Your task to perform on an android device: turn off improve location accuracy Image 0: 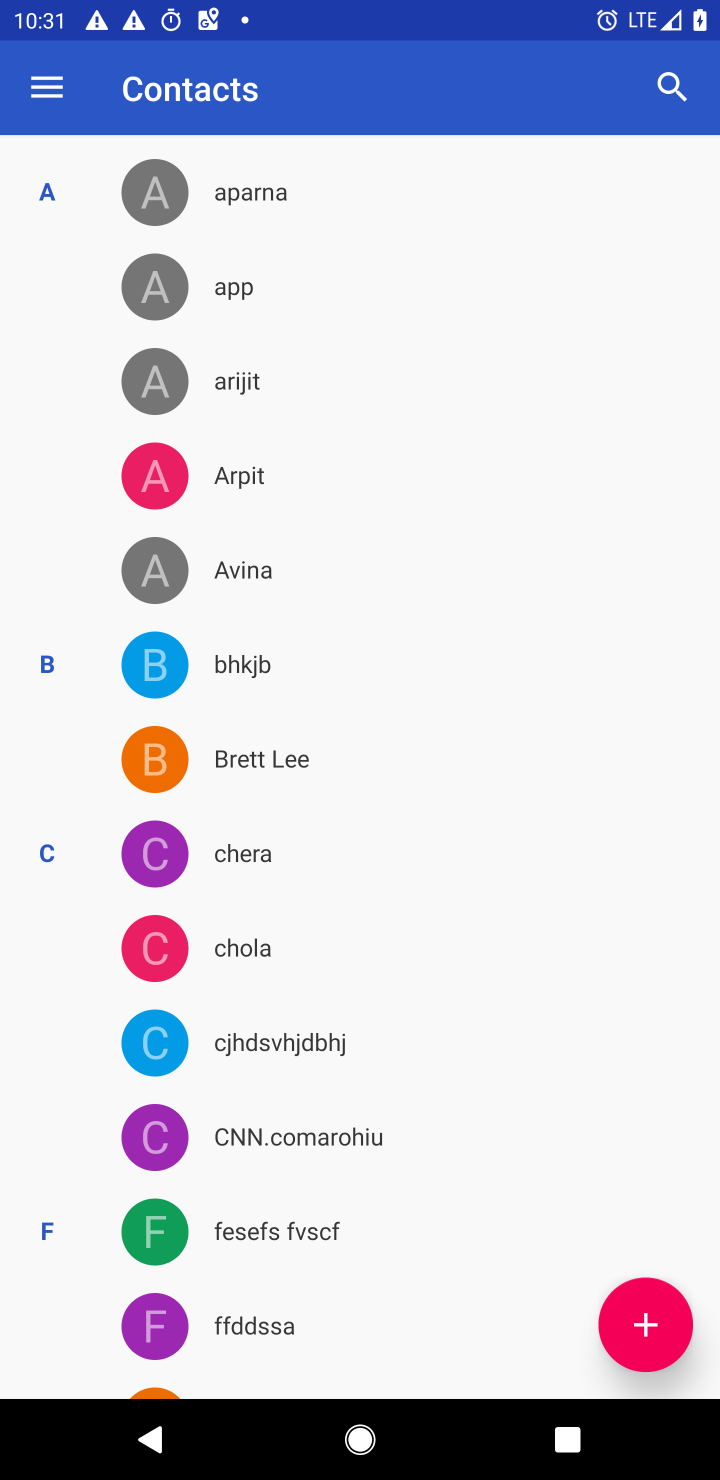
Step 0: press back button
Your task to perform on an android device: turn off improve location accuracy Image 1: 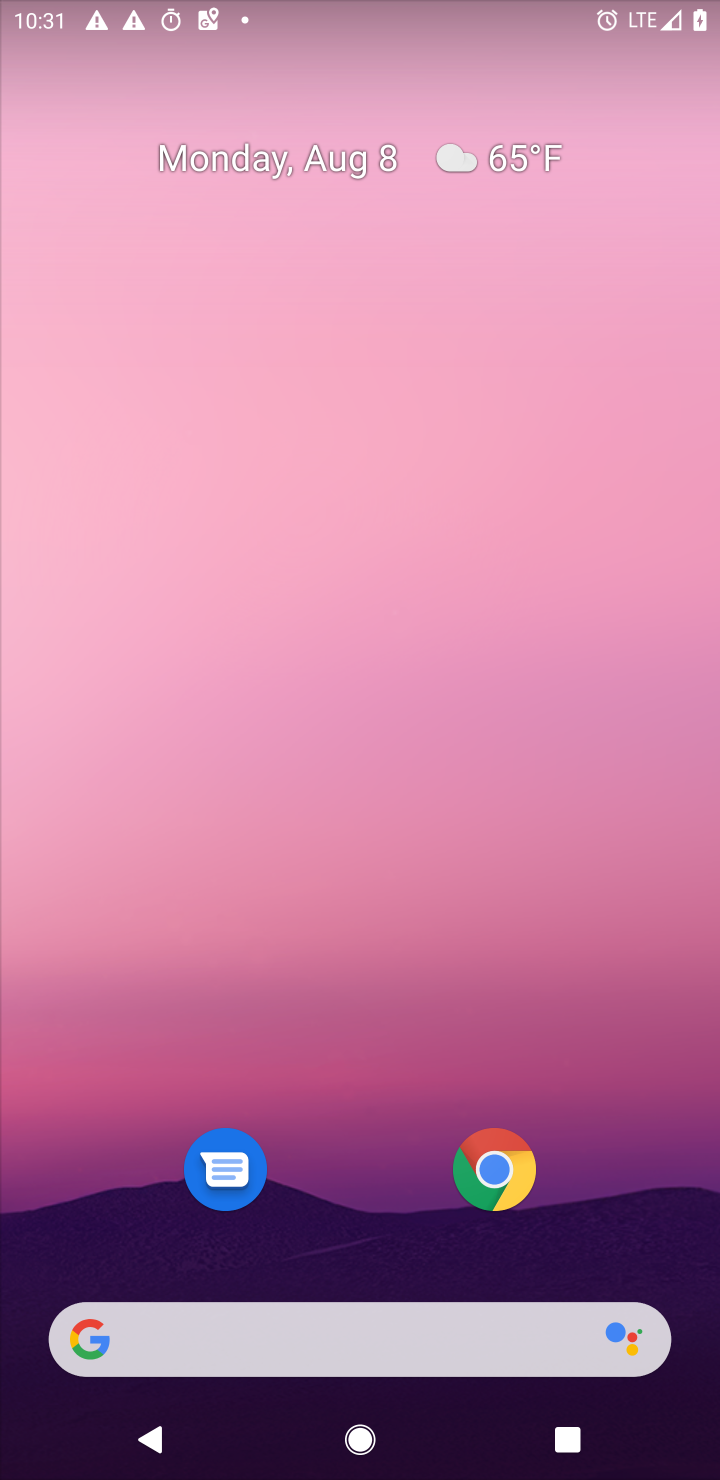
Step 1: drag from (297, 1201) to (489, 171)
Your task to perform on an android device: turn off improve location accuracy Image 2: 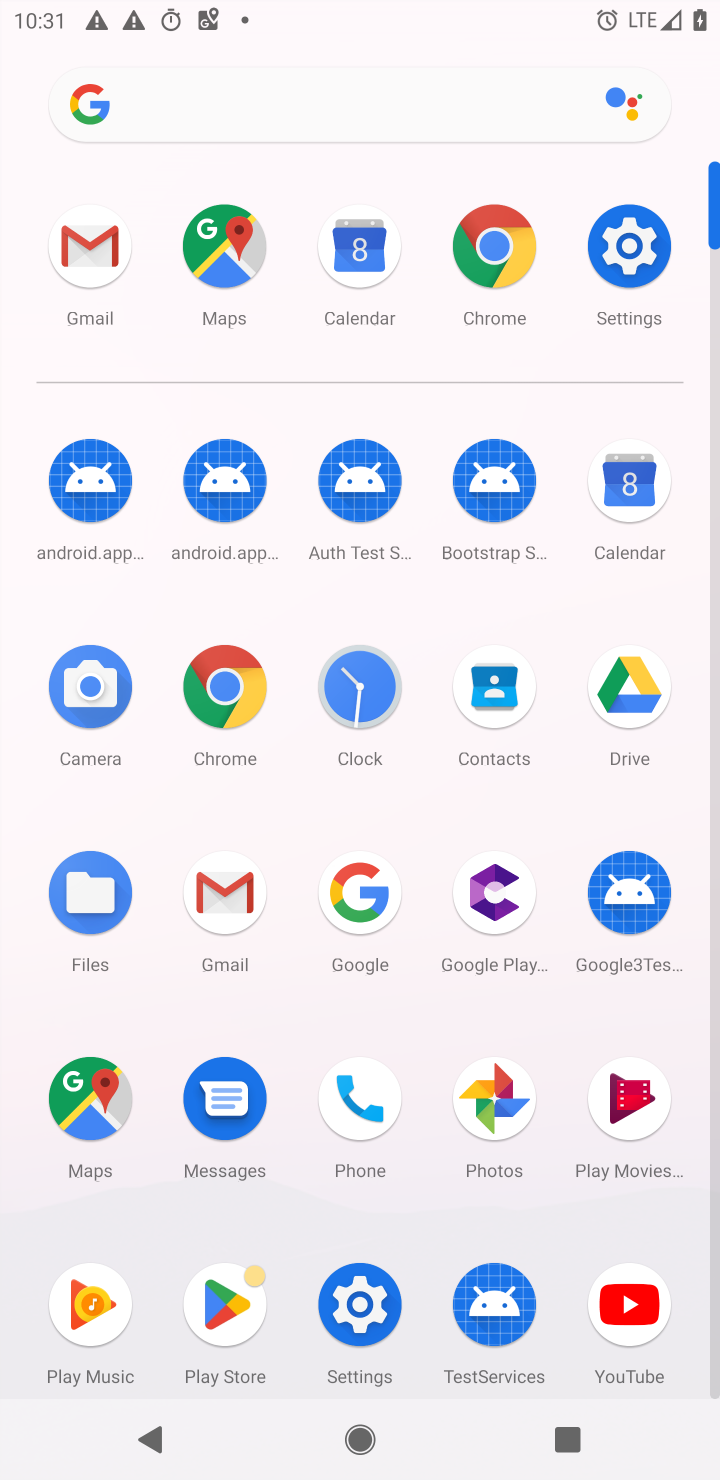
Step 2: click (664, 252)
Your task to perform on an android device: turn off improve location accuracy Image 3: 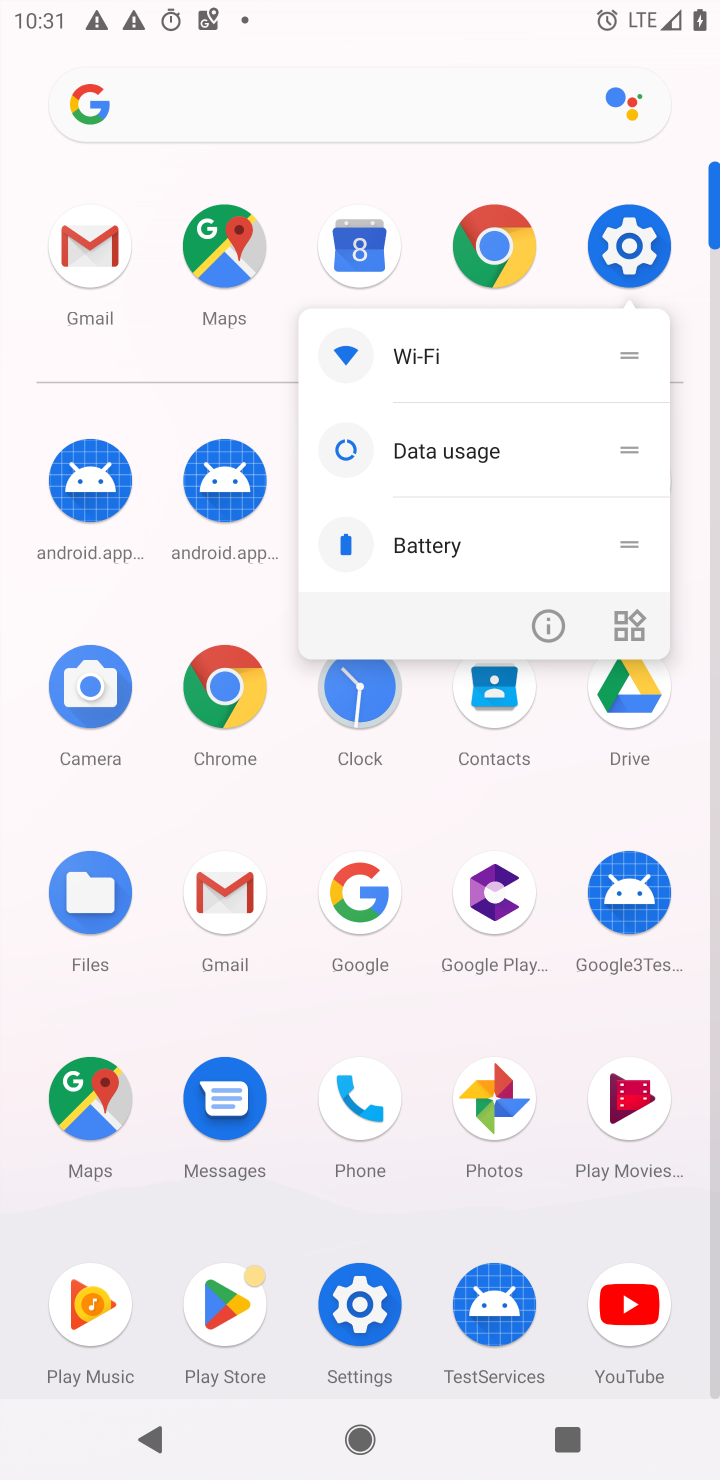
Step 3: click (625, 254)
Your task to perform on an android device: turn off improve location accuracy Image 4: 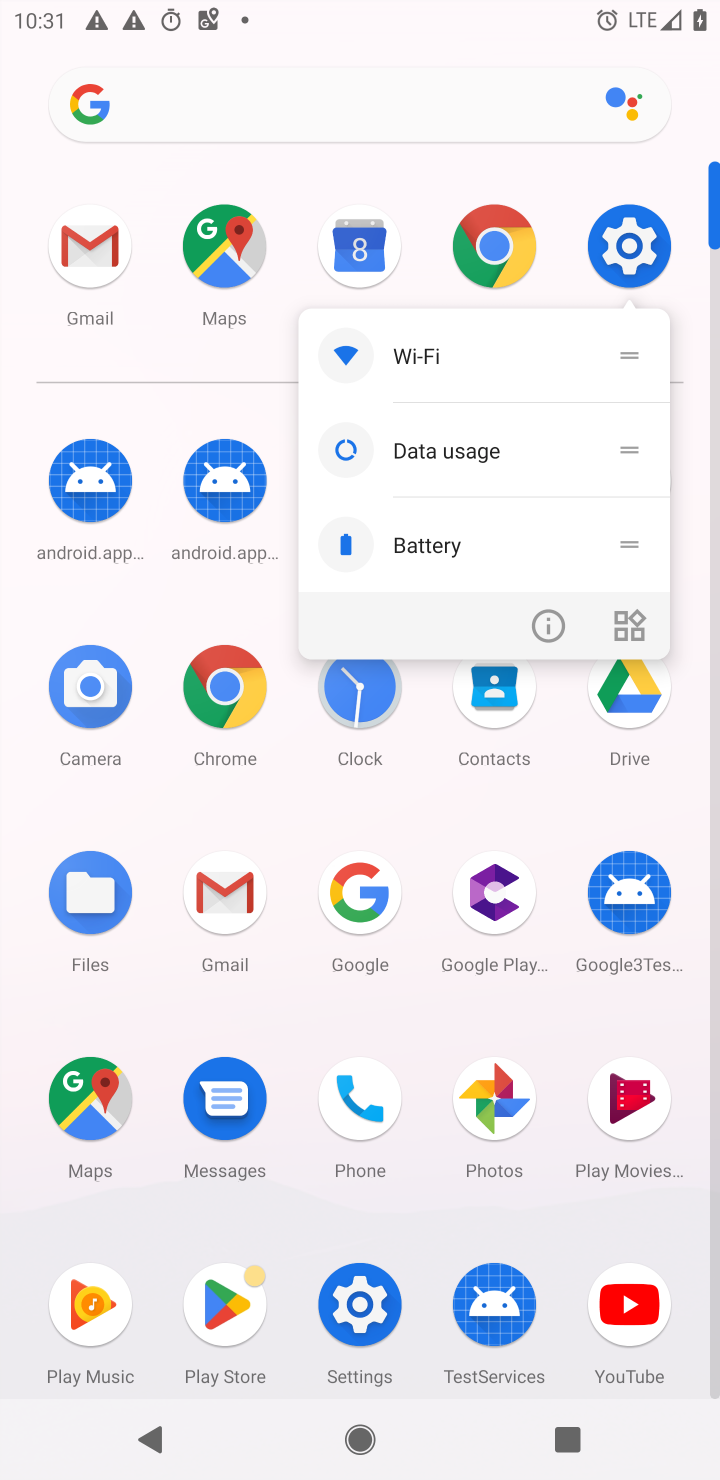
Step 4: click (625, 254)
Your task to perform on an android device: turn off improve location accuracy Image 5: 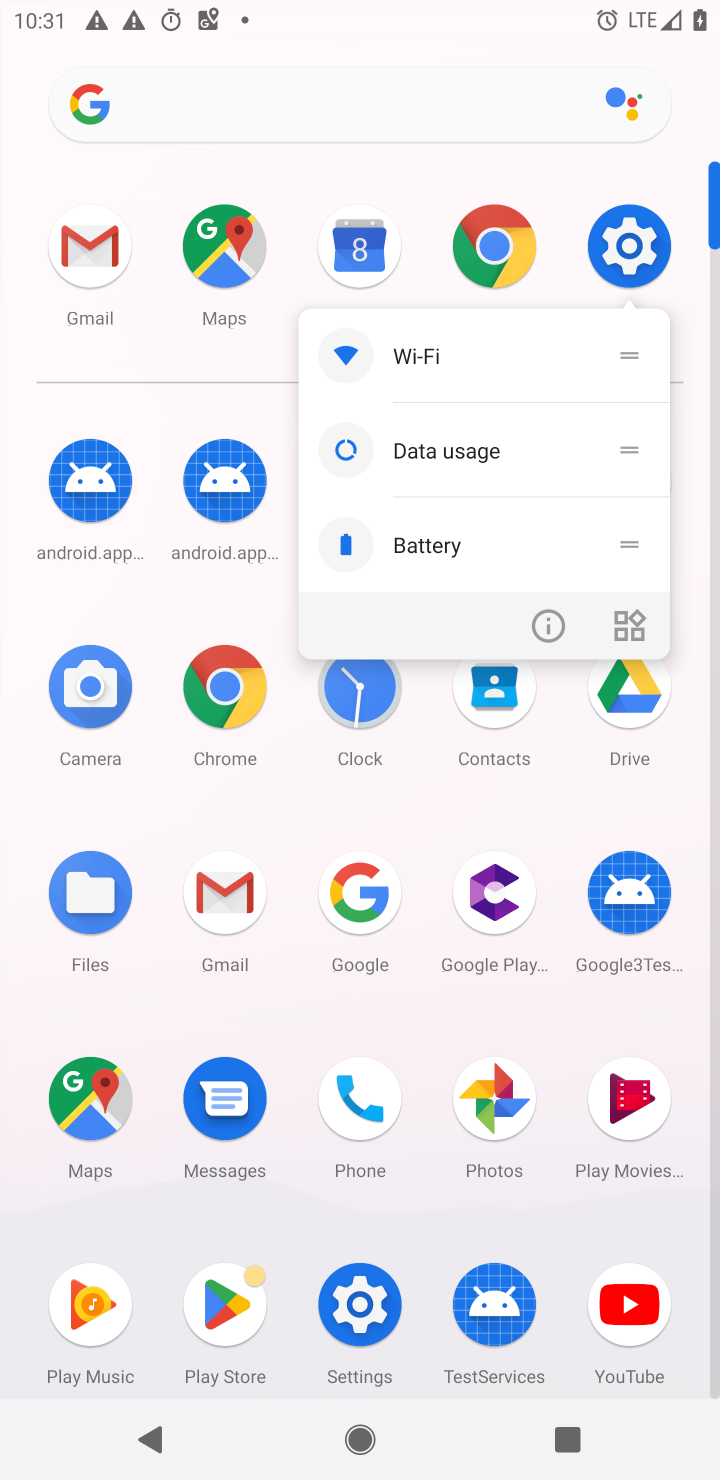
Step 5: click (625, 254)
Your task to perform on an android device: turn off improve location accuracy Image 6: 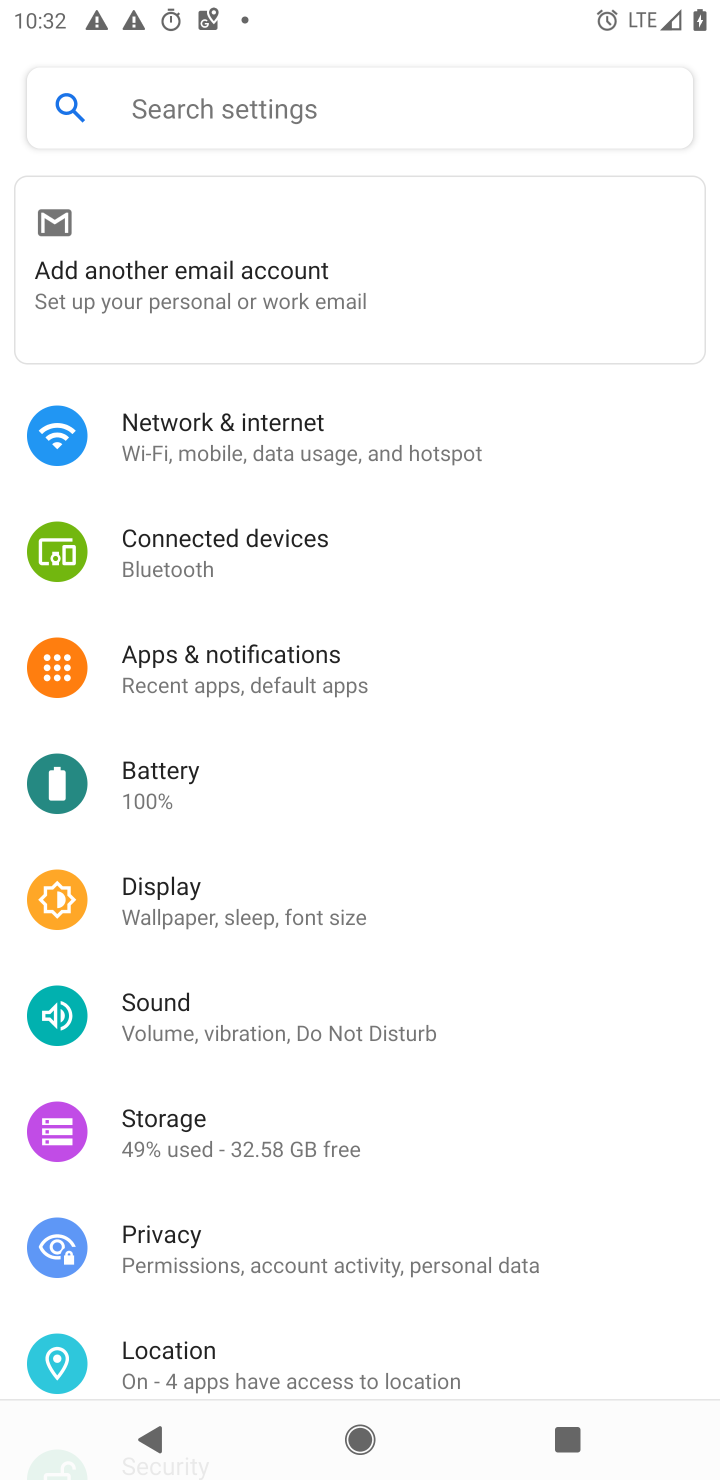
Step 6: click (196, 1352)
Your task to perform on an android device: turn off improve location accuracy Image 7: 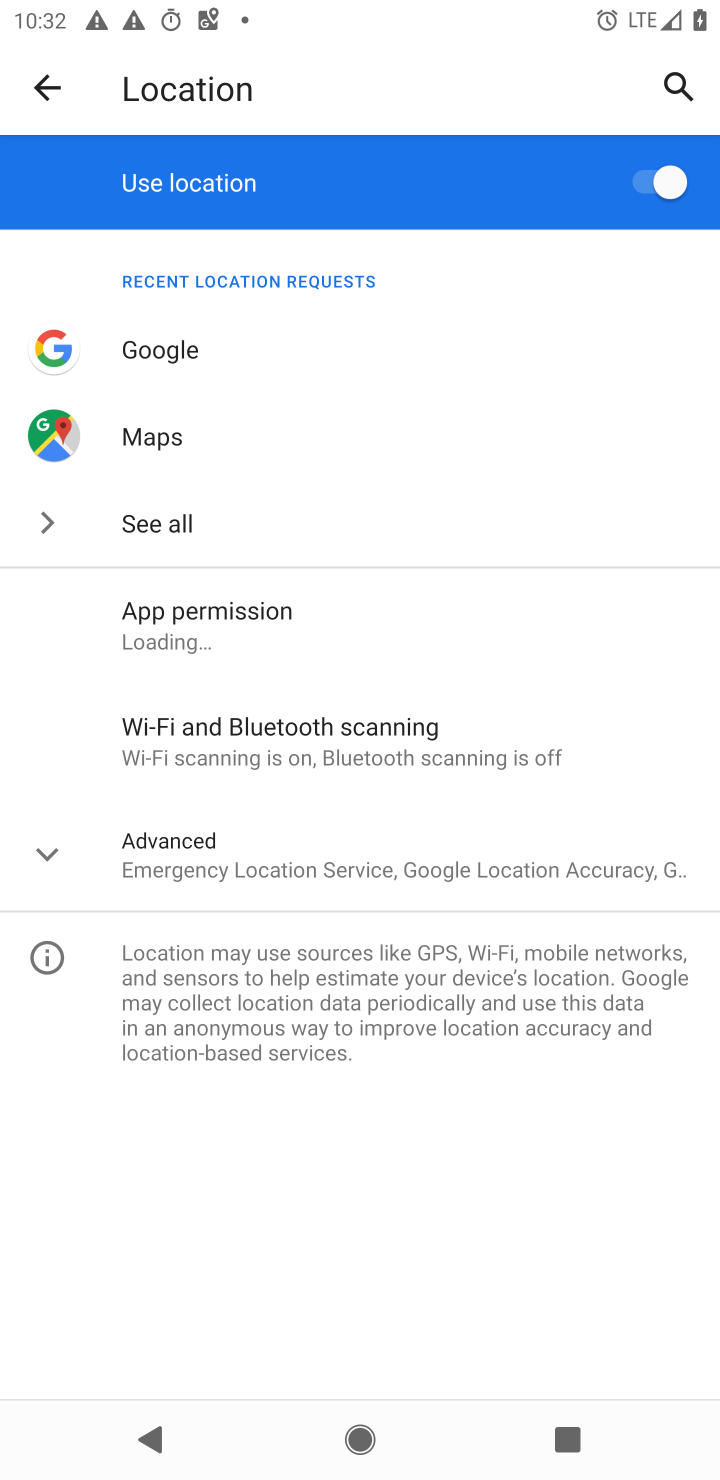
Step 7: click (283, 851)
Your task to perform on an android device: turn off improve location accuracy Image 8: 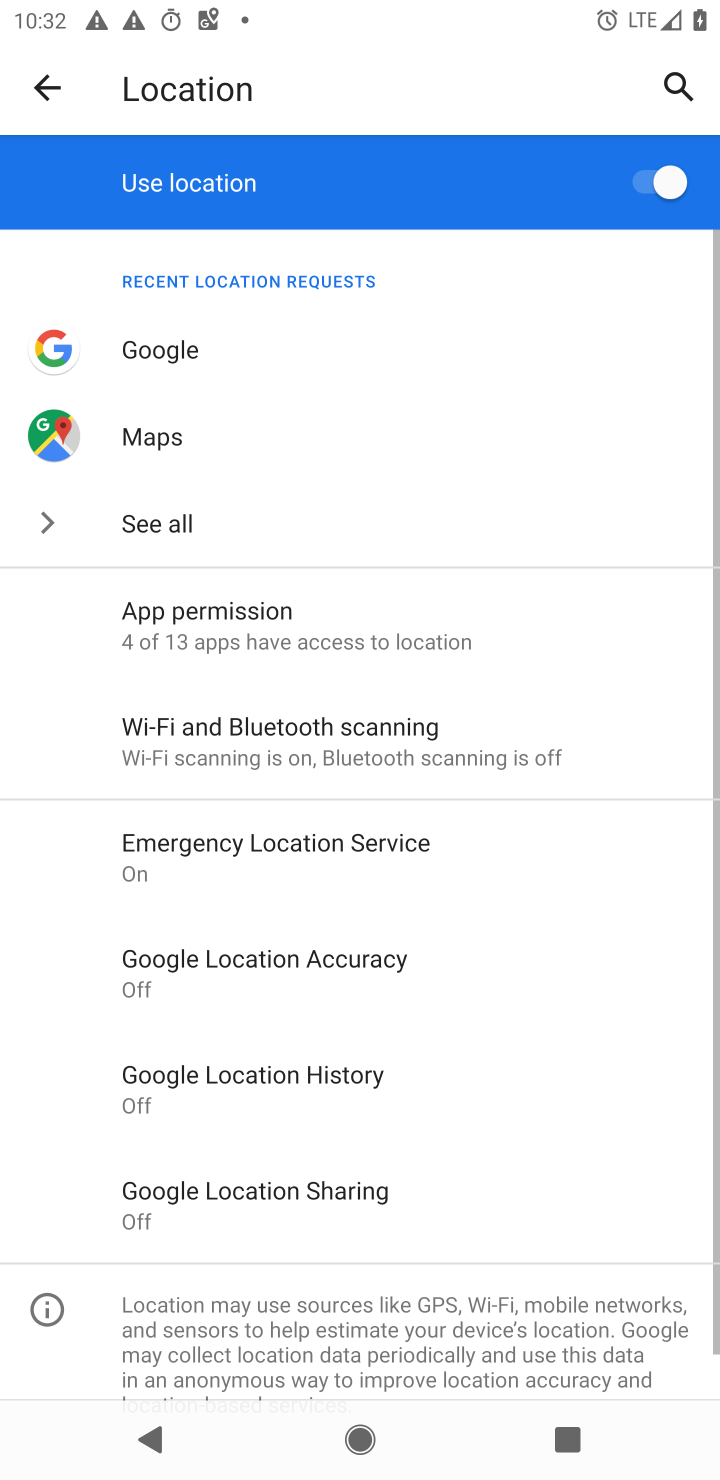
Step 8: click (211, 956)
Your task to perform on an android device: turn off improve location accuracy Image 9: 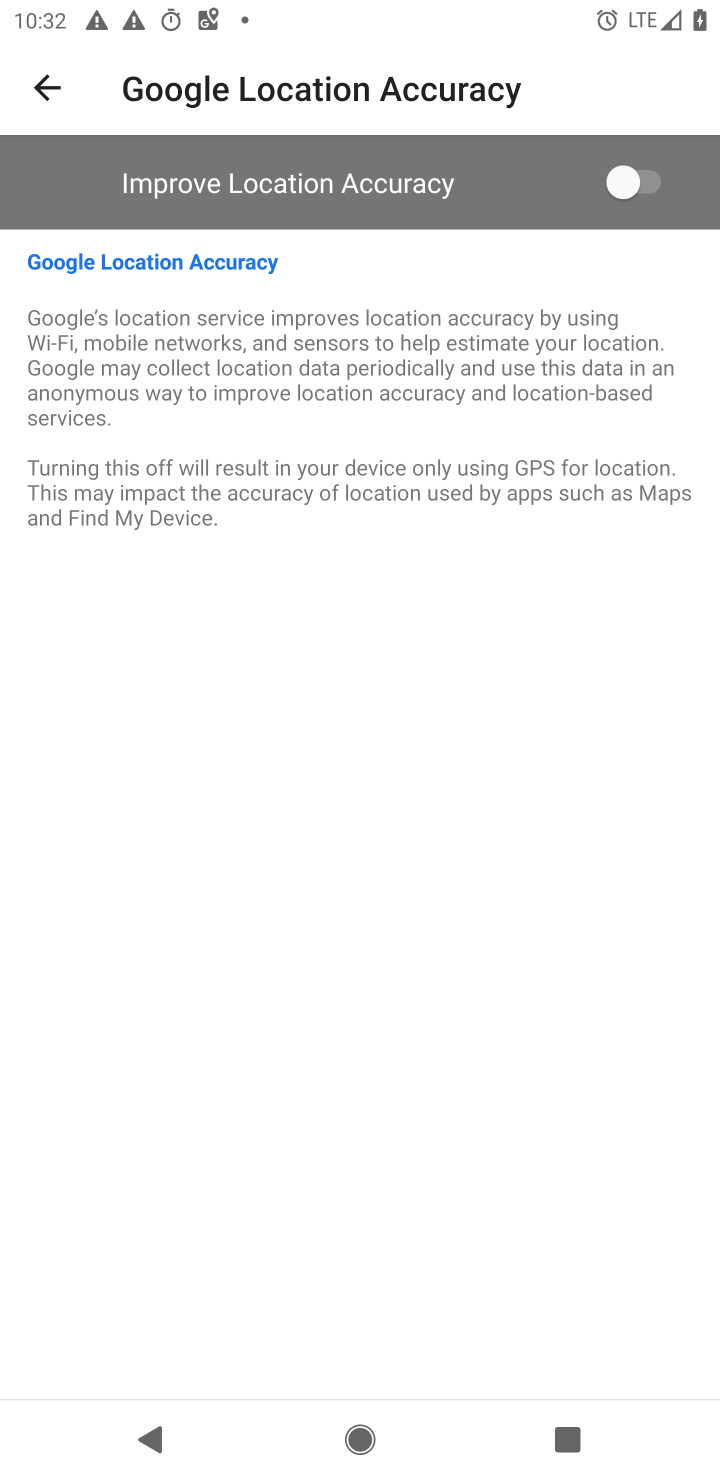
Step 9: task complete